Your task to perform on an android device: Open Yahoo.com Image 0: 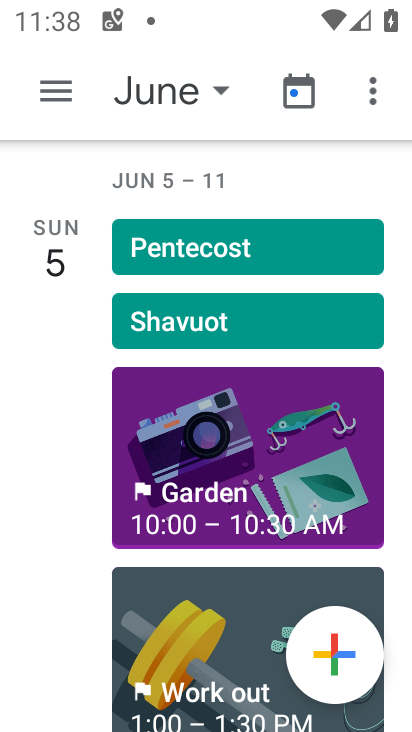
Step 0: press home button
Your task to perform on an android device: Open Yahoo.com Image 1: 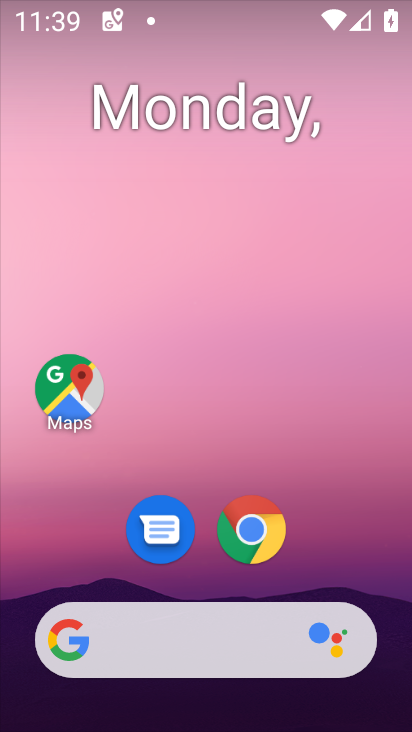
Step 1: click (255, 539)
Your task to perform on an android device: Open Yahoo.com Image 2: 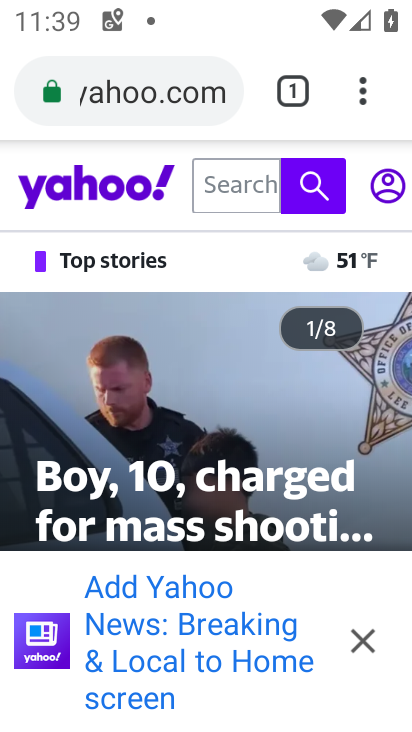
Step 2: task complete